Your task to perform on an android device: open sync settings in chrome Image 0: 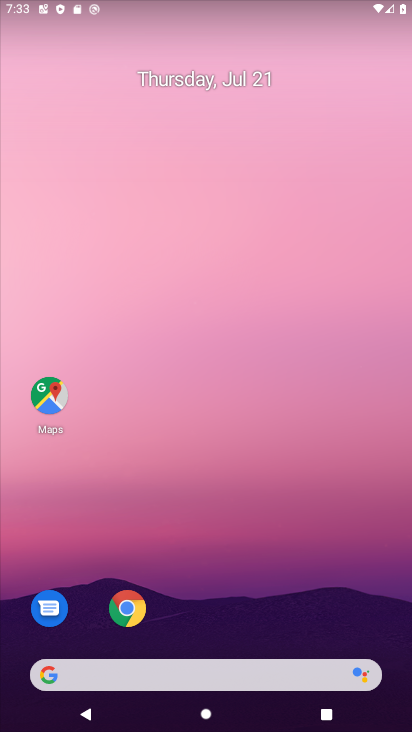
Step 0: click (126, 608)
Your task to perform on an android device: open sync settings in chrome Image 1: 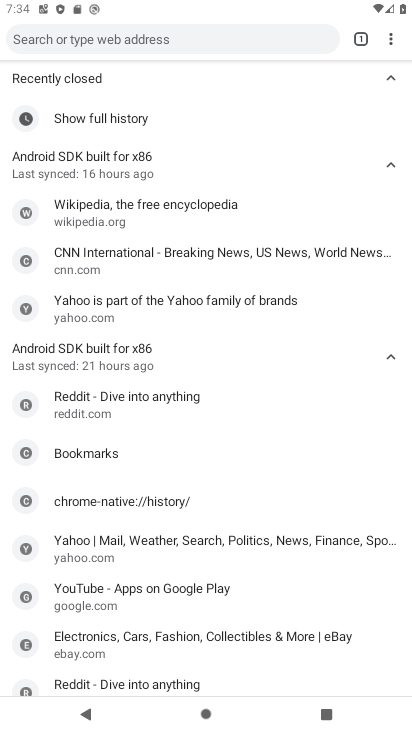
Step 1: click (393, 40)
Your task to perform on an android device: open sync settings in chrome Image 2: 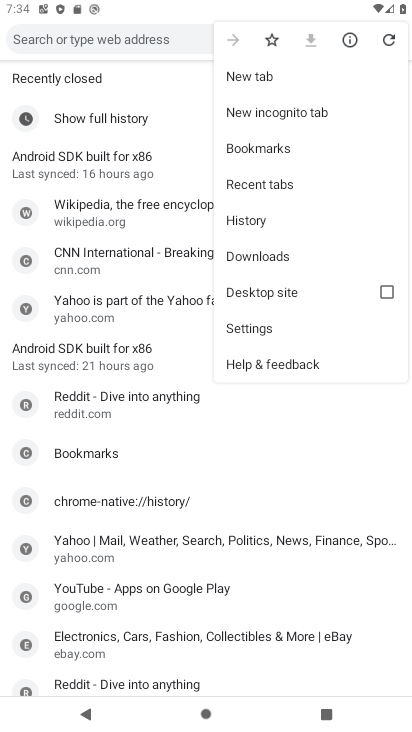
Step 2: click (257, 326)
Your task to perform on an android device: open sync settings in chrome Image 3: 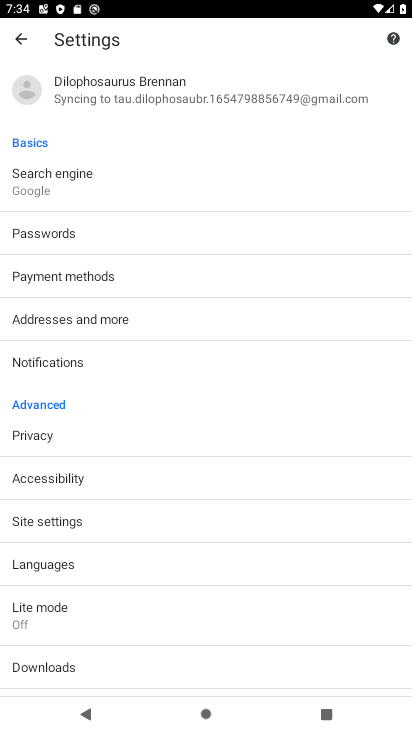
Step 3: click (43, 521)
Your task to perform on an android device: open sync settings in chrome Image 4: 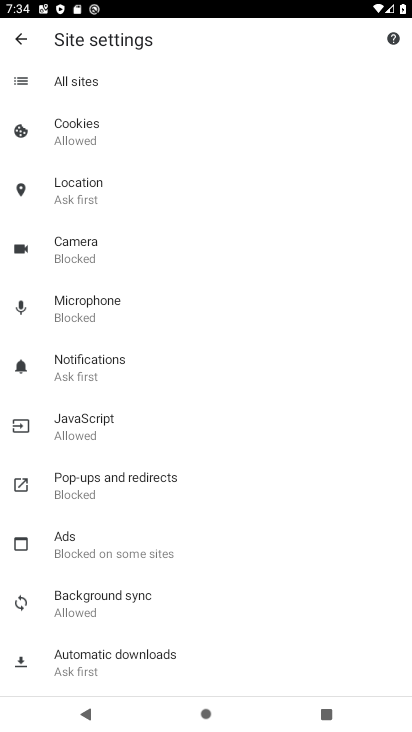
Step 4: click (74, 593)
Your task to perform on an android device: open sync settings in chrome Image 5: 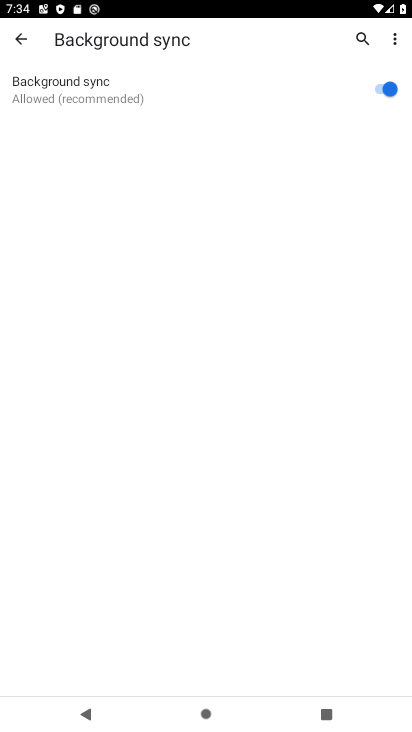
Step 5: task complete